Your task to perform on an android device: What is the recent news? Image 0: 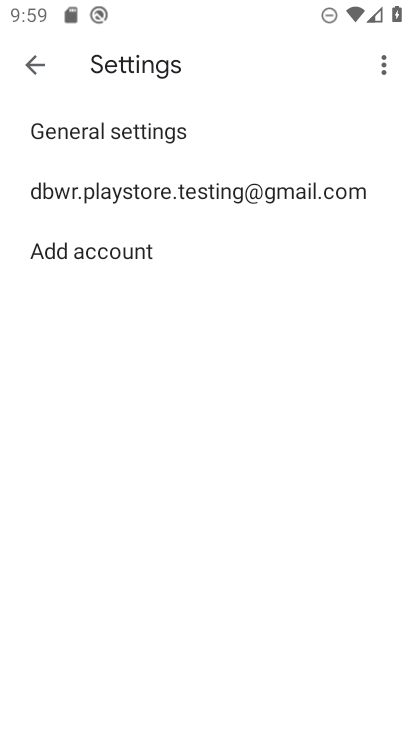
Step 0: press home button
Your task to perform on an android device: What is the recent news? Image 1: 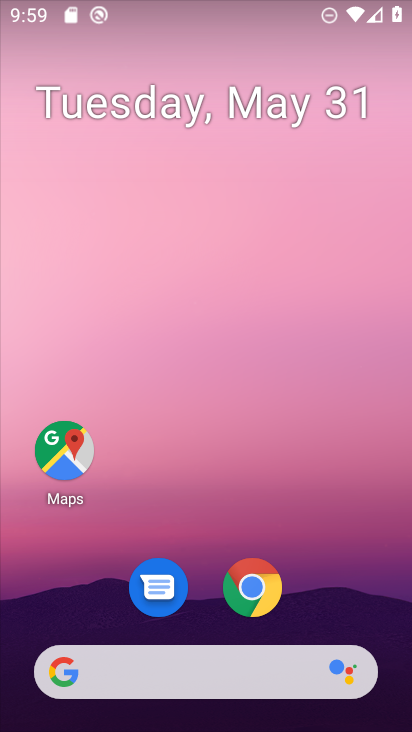
Step 1: task complete